Your task to perform on an android device: Open wifi settings Image 0: 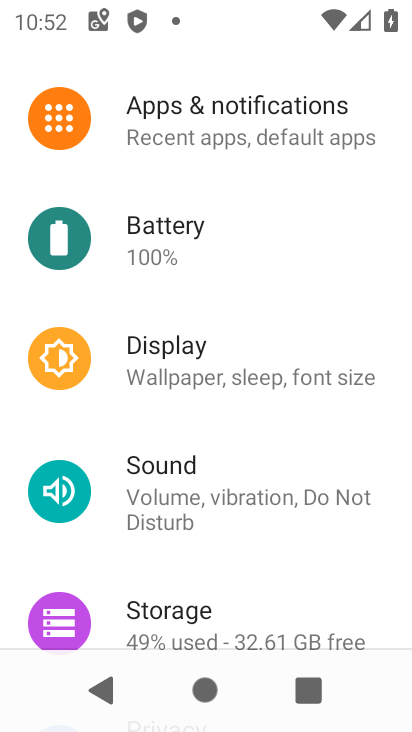
Step 0: drag from (236, 236) to (221, 584)
Your task to perform on an android device: Open wifi settings Image 1: 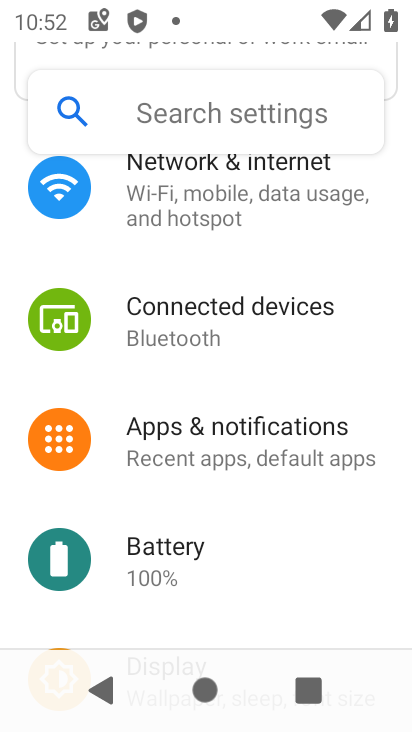
Step 1: click (210, 213)
Your task to perform on an android device: Open wifi settings Image 2: 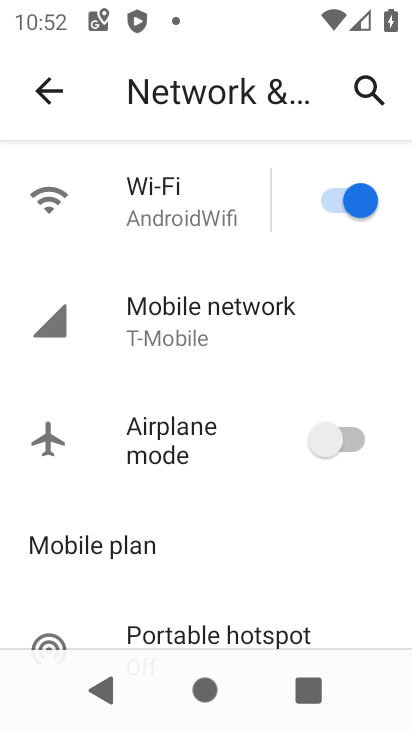
Step 2: click (222, 174)
Your task to perform on an android device: Open wifi settings Image 3: 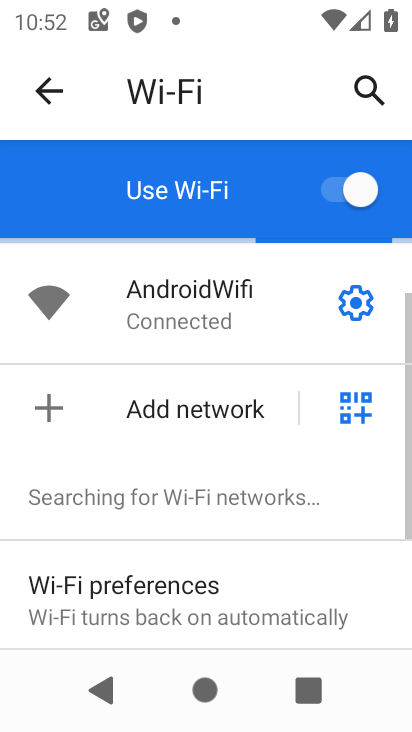
Step 3: click (361, 310)
Your task to perform on an android device: Open wifi settings Image 4: 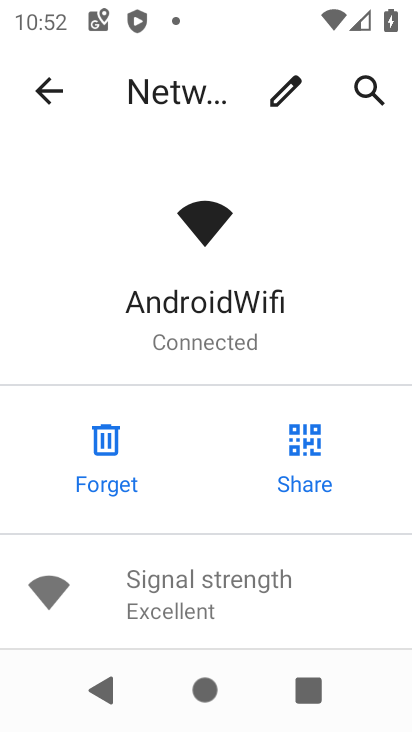
Step 4: task complete